Your task to perform on an android device: What's on my calendar today? Image 0: 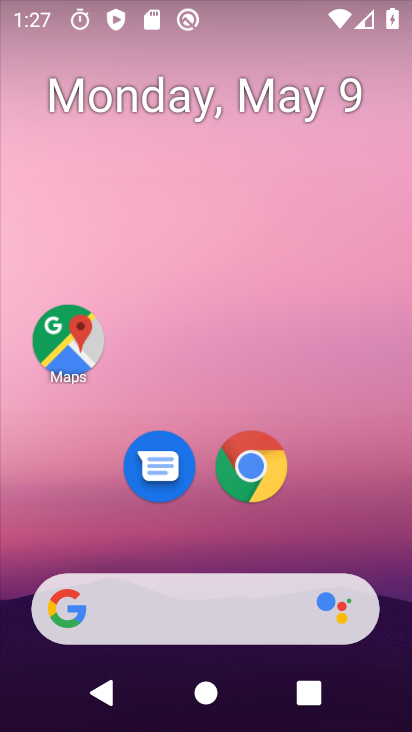
Step 0: drag from (240, 492) to (235, 258)
Your task to perform on an android device: What's on my calendar today? Image 1: 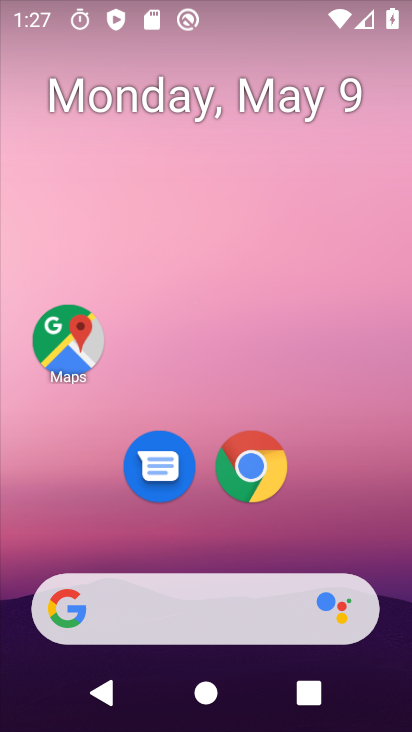
Step 1: drag from (220, 561) to (228, 386)
Your task to perform on an android device: What's on my calendar today? Image 2: 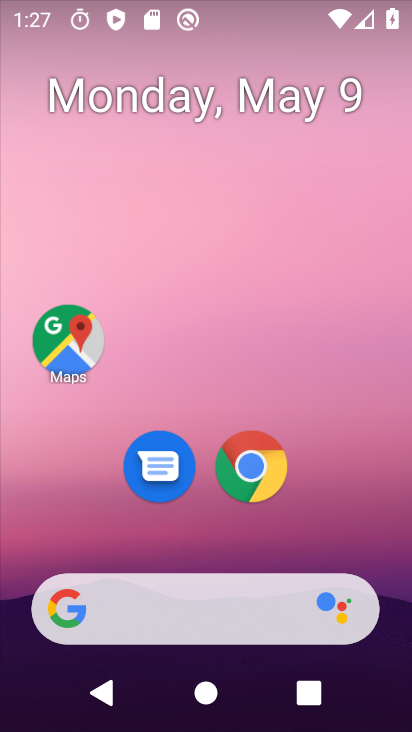
Step 2: drag from (265, 601) to (273, 234)
Your task to perform on an android device: What's on my calendar today? Image 3: 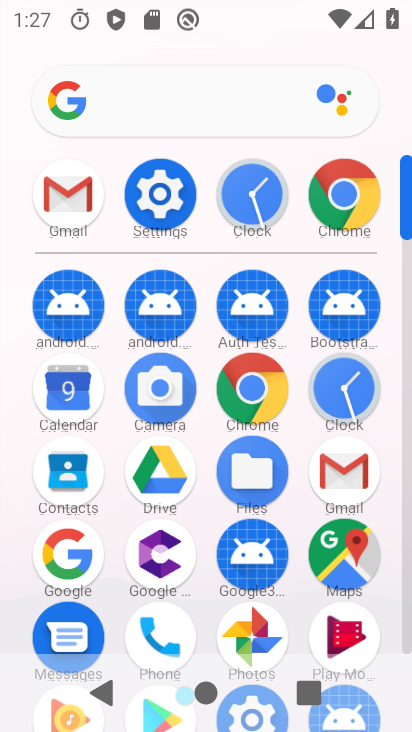
Step 3: drag from (223, 358) to (224, 309)
Your task to perform on an android device: What's on my calendar today? Image 4: 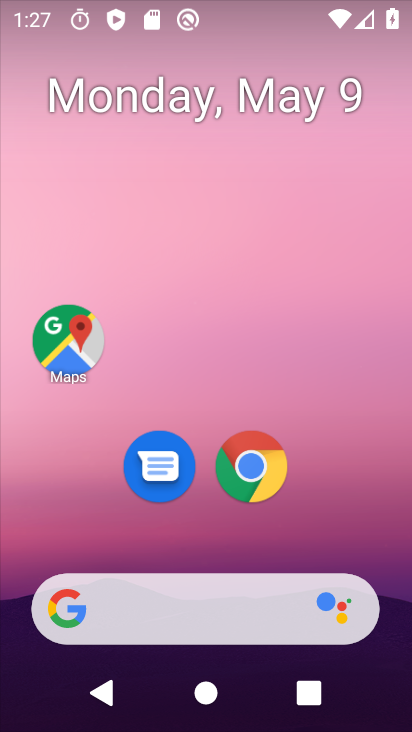
Step 4: drag from (277, 530) to (277, 276)
Your task to perform on an android device: What's on my calendar today? Image 5: 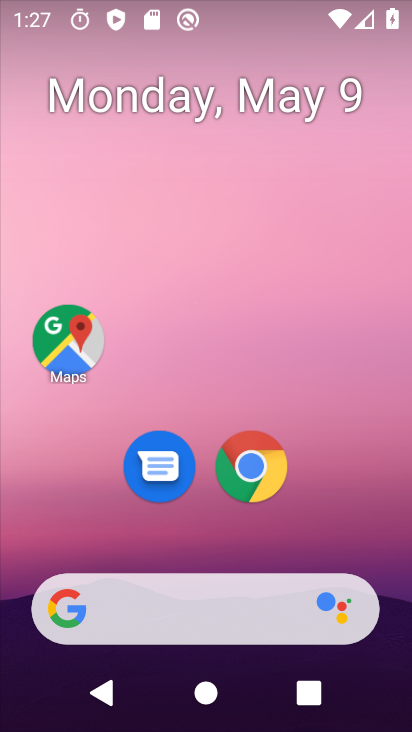
Step 5: drag from (291, 206) to (297, 113)
Your task to perform on an android device: What's on my calendar today? Image 6: 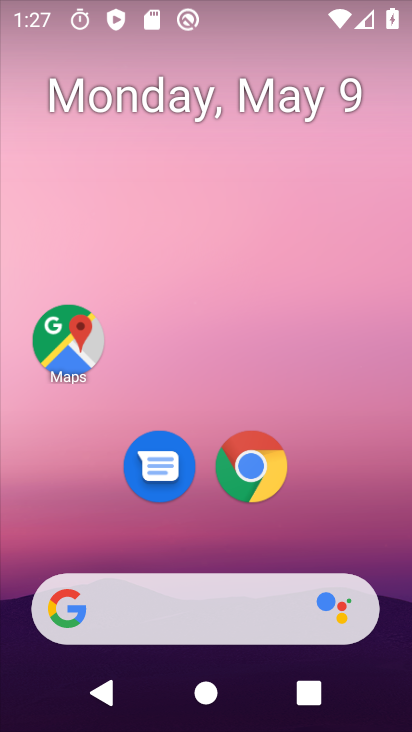
Step 6: drag from (329, 561) to (290, 223)
Your task to perform on an android device: What's on my calendar today? Image 7: 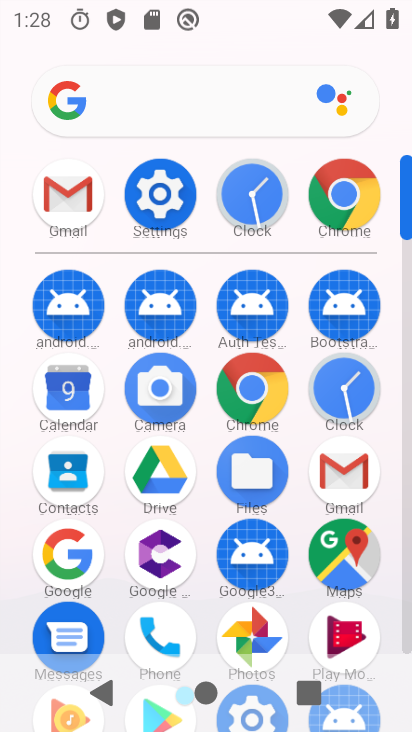
Step 7: click (69, 412)
Your task to perform on an android device: What's on my calendar today? Image 8: 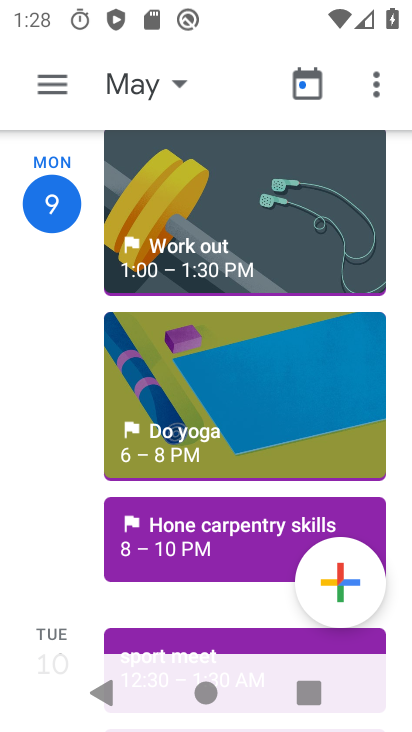
Step 8: task complete